Your task to perform on an android device: Go to network settings Image 0: 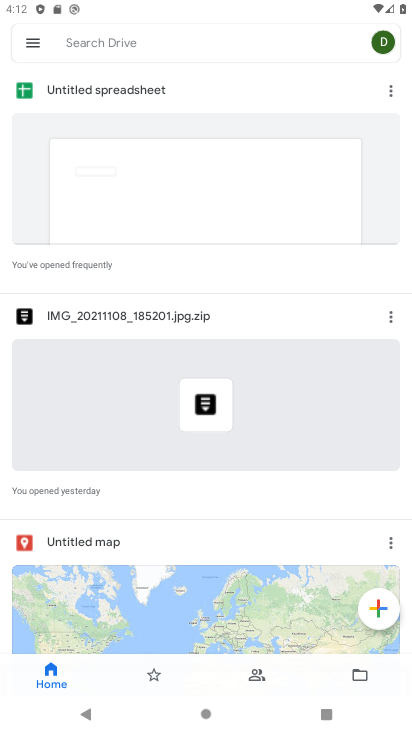
Step 0: press home button
Your task to perform on an android device: Go to network settings Image 1: 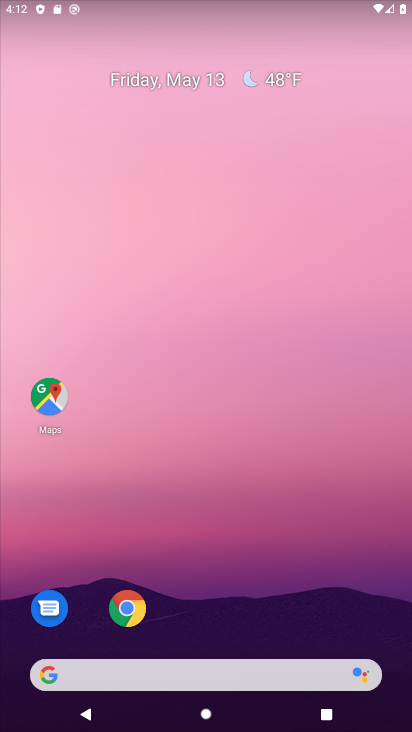
Step 1: drag from (220, 724) to (230, 214)
Your task to perform on an android device: Go to network settings Image 2: 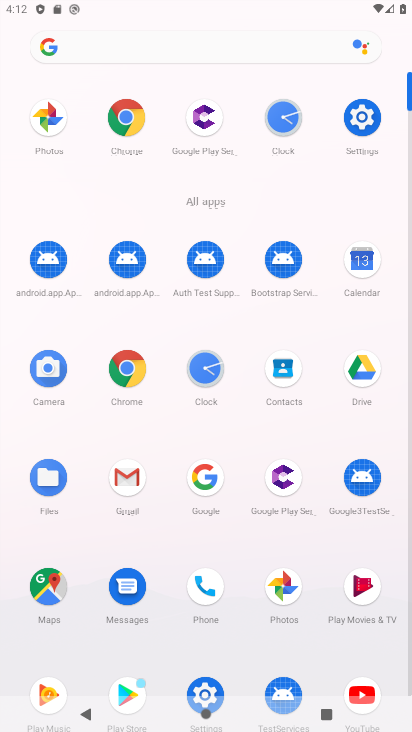
Step 2: click (357, 120)
Your task to perform on an android device: Go to network settings Image 3: 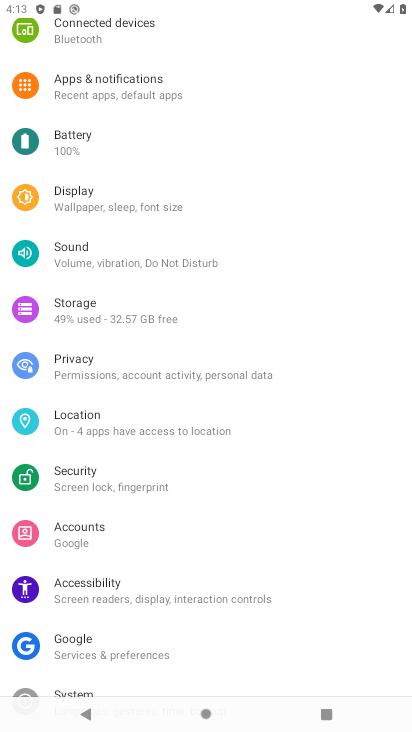
Step 3: drag from (237, 134) to (239, 474)
Your task to perform on an android device: Go to network settings Image 4: 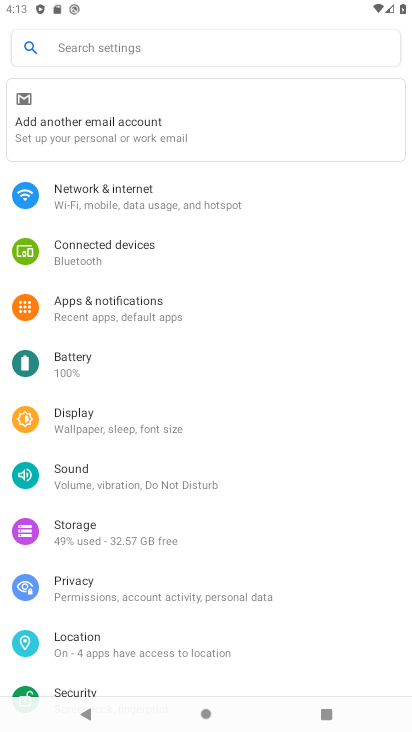
Step 4: click (121, 194)
Your task to perform on an android device: Go to network settings Image 5: 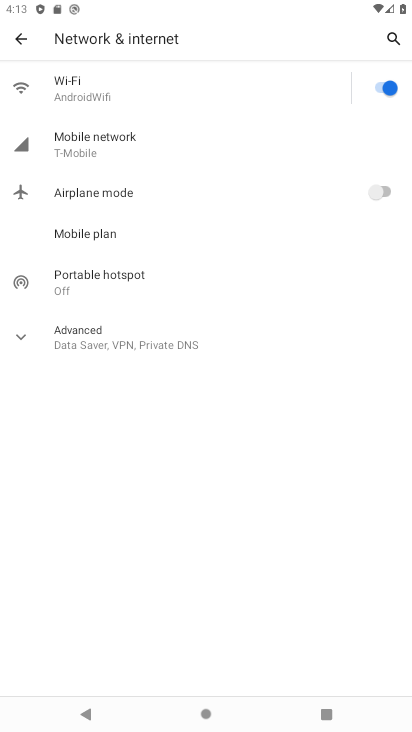
Step 5: click (97, 140)
Your task to perform on an android device: Go to network settings Image 6: 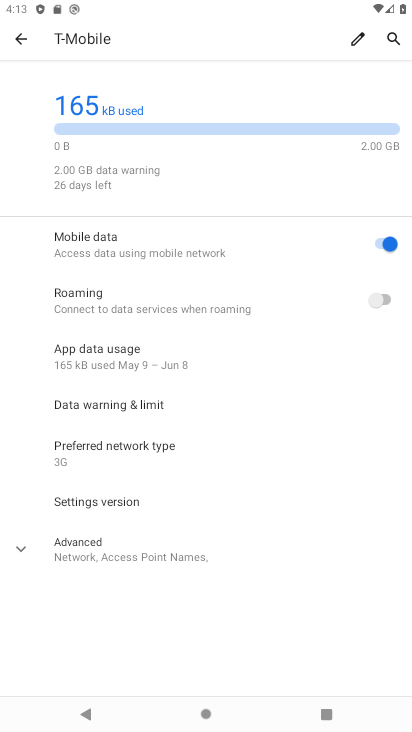
Step 6: task complete